Your task to perform on an android device: Open display settings Image 0: 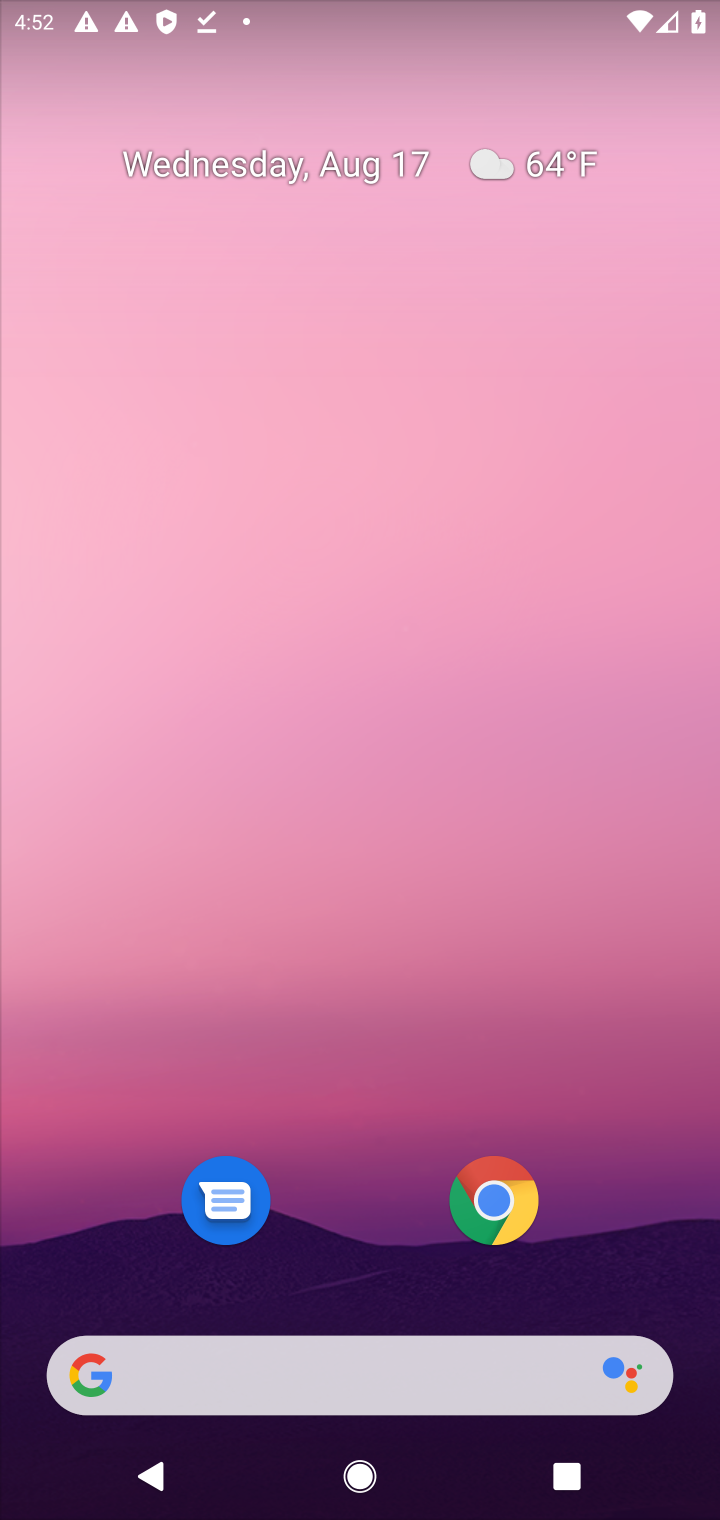
Step 0: drag from (357, 1310) to (363, 151)
Your task to perform on an android device: Open display settings Image 1: 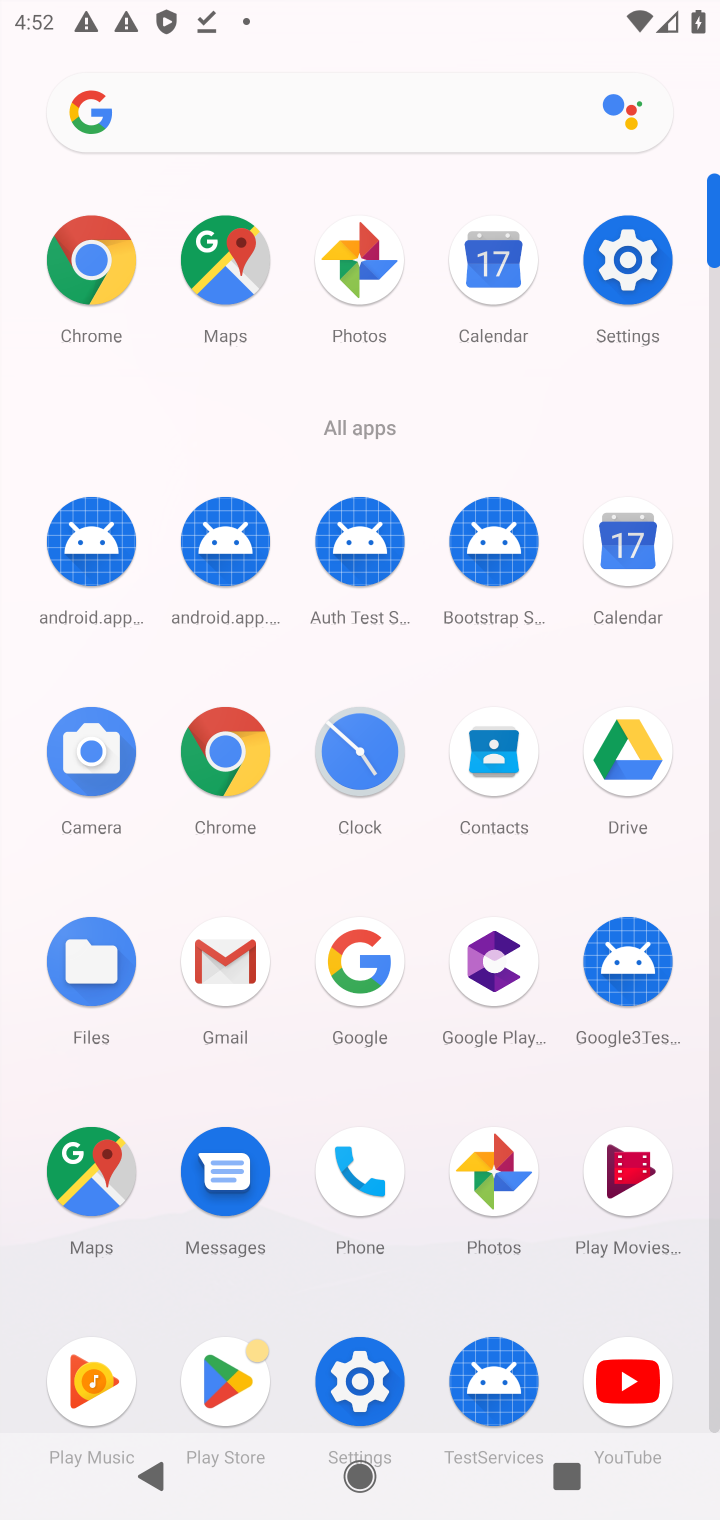
Step 1: click (611, 271)
Your task to perform on an android device: Open display settings Image 2: 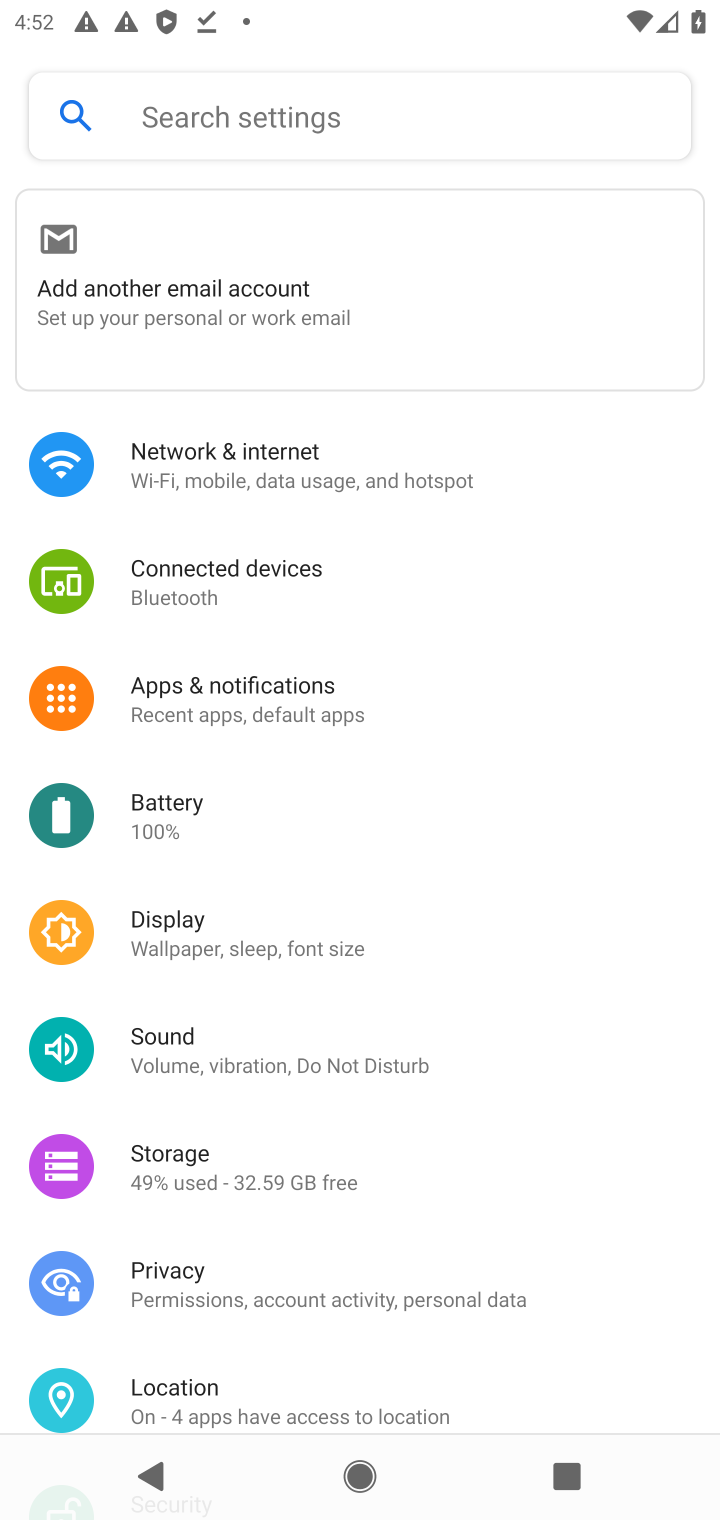
Step 2: click (159, 926)
Your task to perform on an android device: Open display settings Image 3: 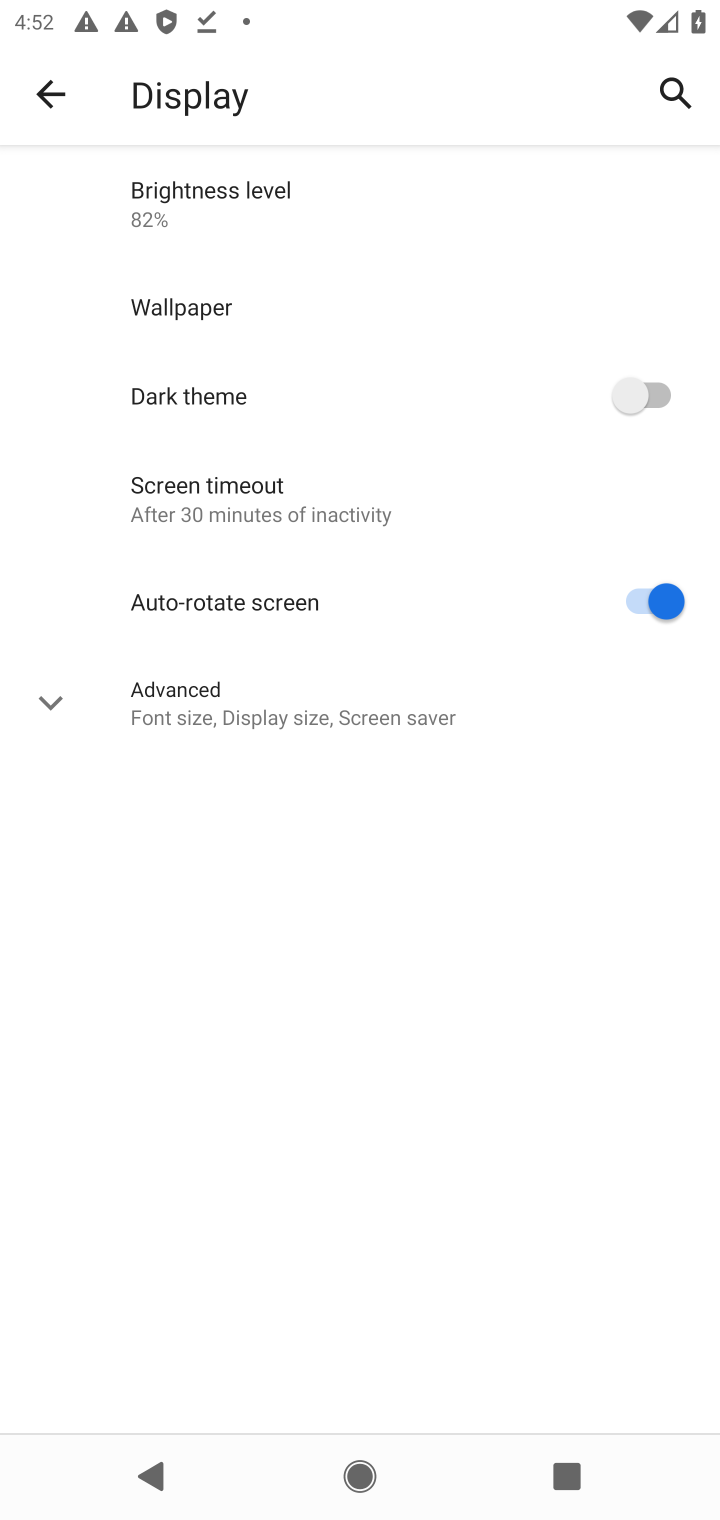
Step 3: task complete